Your task to perform on an android device: set the timer Image 0: 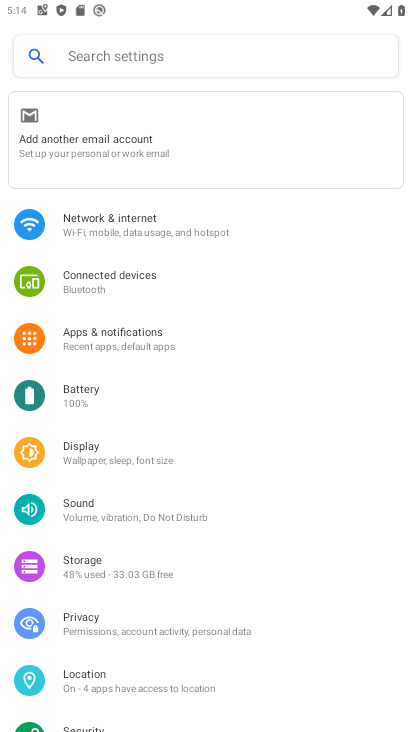
Step 0: press home button
Your task to perform on an android device: set the timer Image 1: 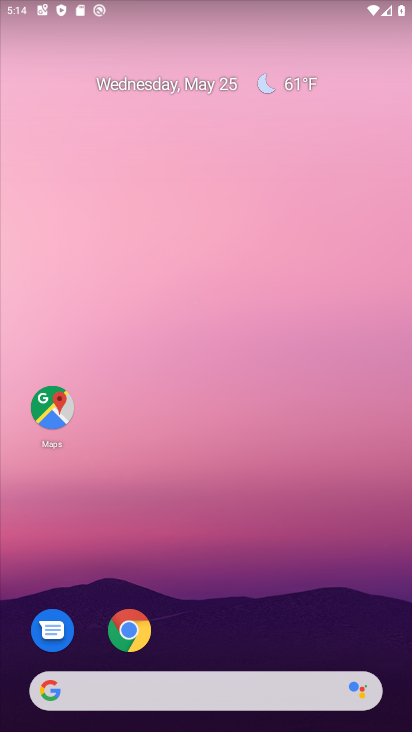
Step 1: drag from (267, 613) to (332, 83)
Your task to perform on an android device: set the timer Image 2: 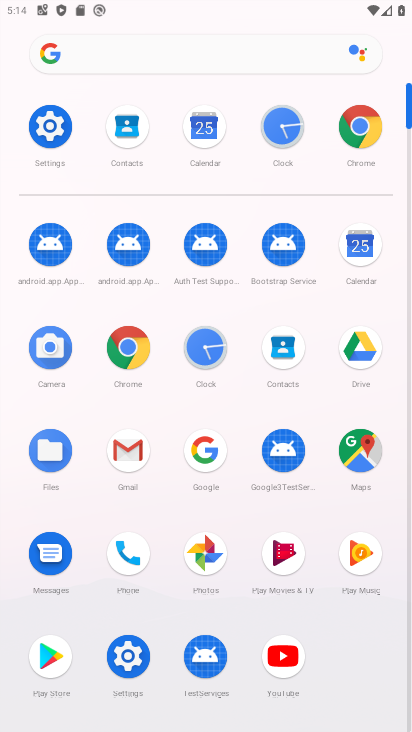
Step 2: click (201, 345)
Your task to perform on an android device: set the timer Image 3: 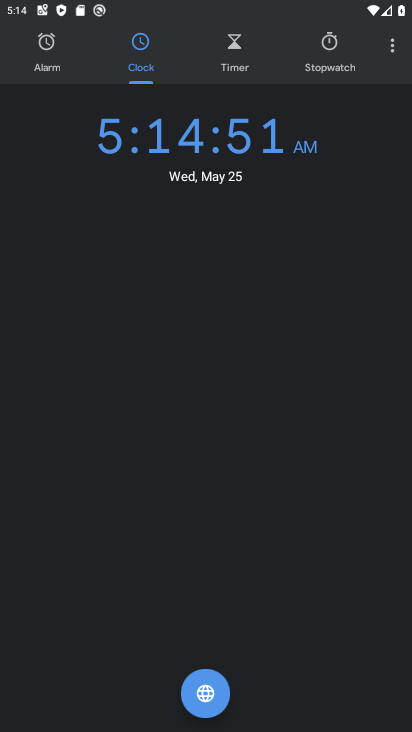
Step 3: click (233, 43)
Your task to perform on an android device: set the timer Image 4: 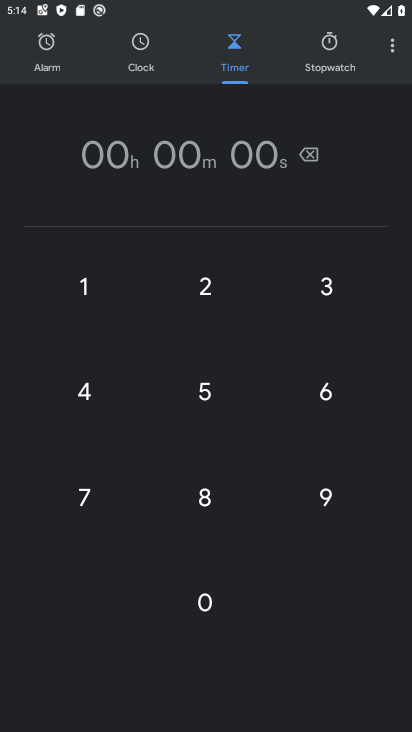
Step 4: click (186, 293)
Your task to perform on an android device: set the timer Image 5: 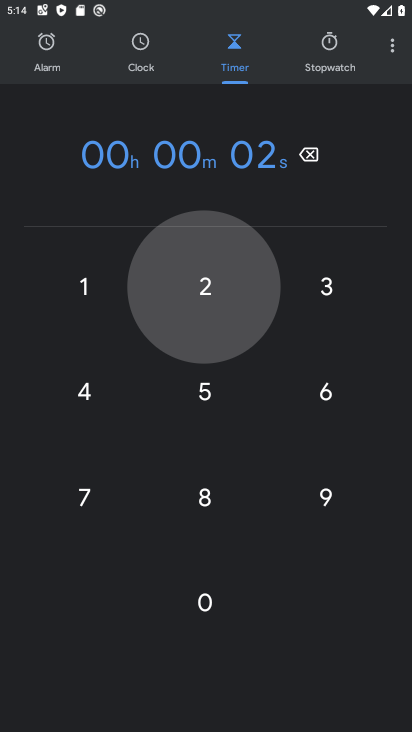
Step 5: click (352, 273)
Your task to perform on an android device: set the timer Image 6: 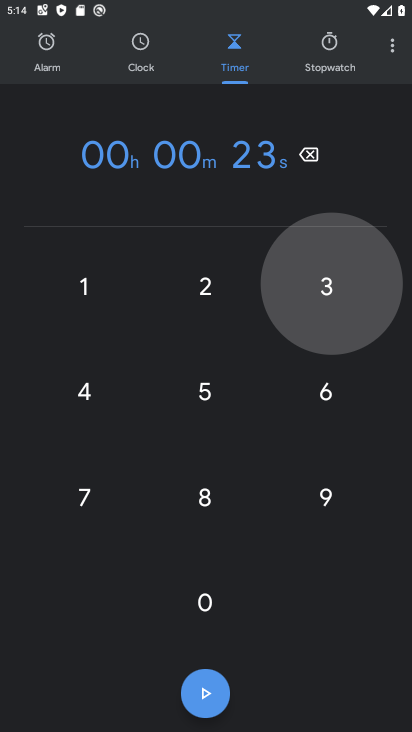
Step 6: click (219, 371)
Your task to perform on an android device: set the timer Image 7: 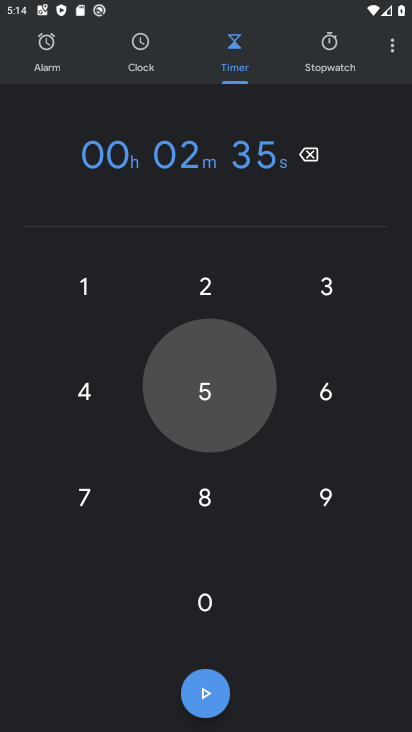
Step 7: click (328, 408)
Your task to perform on an android device: set the timer Image 8: 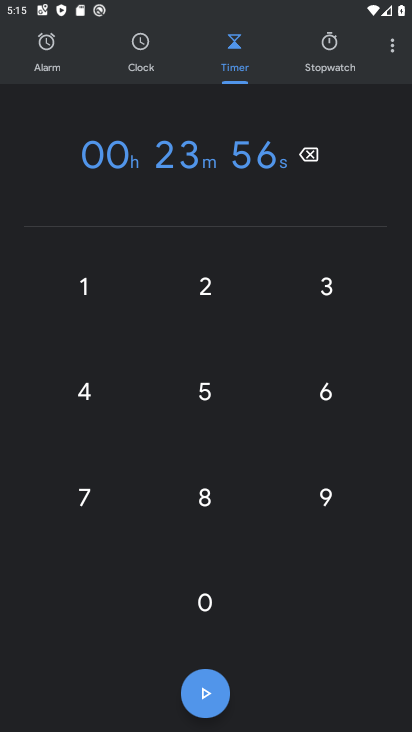
Step 8: task complete